Your task to perform on an android device: Open calendar and show me the third week of next month Image 0: 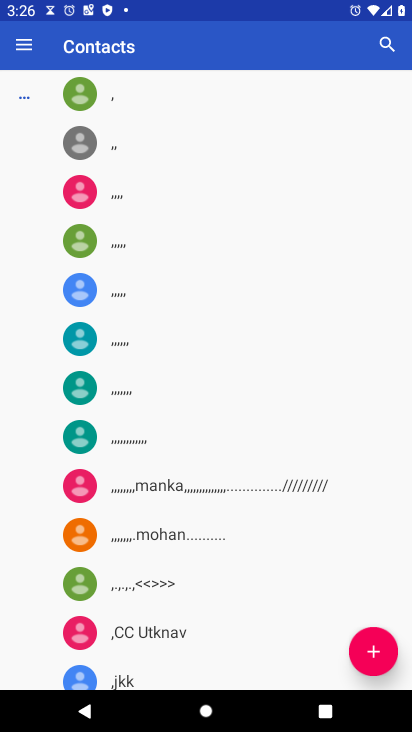
Step 0: press back button
Your task to perform on an android device: Open calendar and show me the third week of next month Image 1: 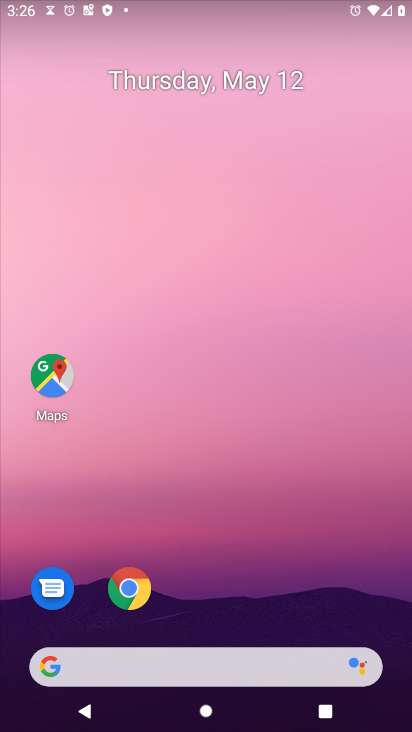
Step 1: drag from (309, 519) to (219, 1)
Your task to perform on an android device: Open calendar and show me the third week of next month Image 2: 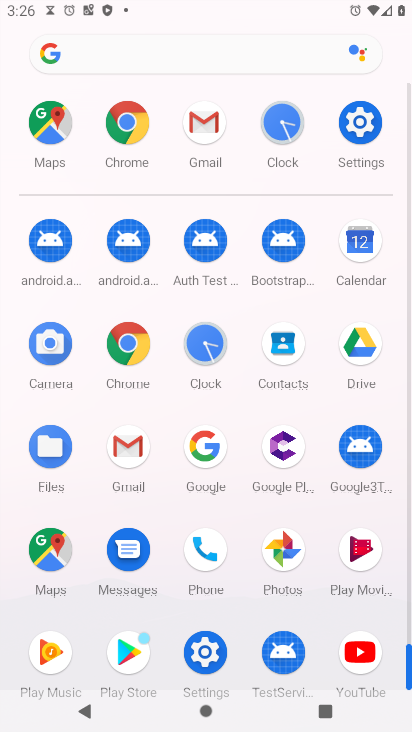
Step 2: drag from (18, 546) to (37, 251)
Your task to perform on an android device: Open calendar and show me the third week of next month Image 3: 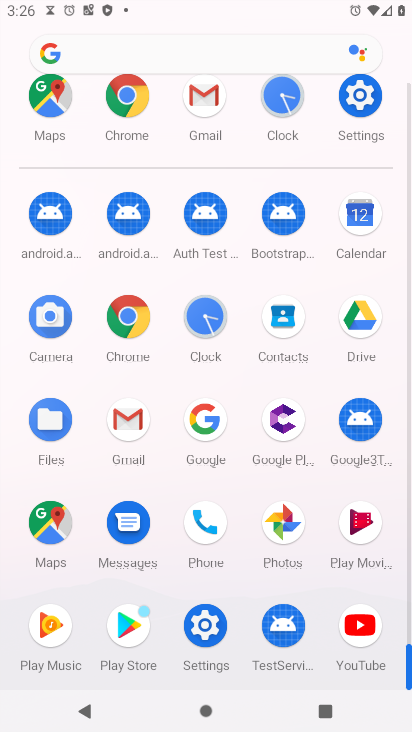
Step 3: click (362, 210)
Your task to perform on an android device: Open calendar and show me the third week of next month Image 4: 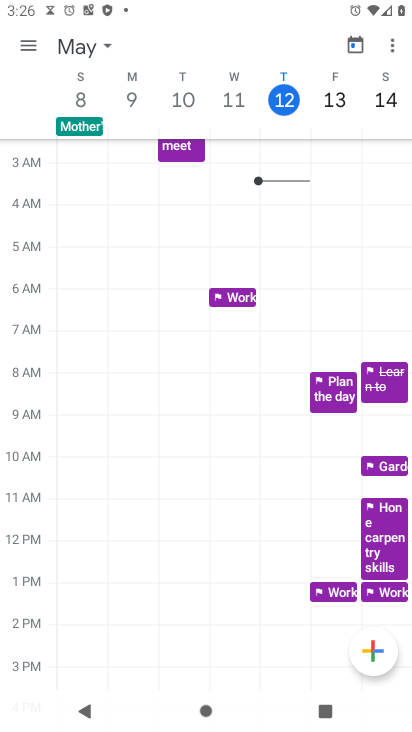
Step 4: click (103, 53)
Your task to perform on an android device: Open calendar and show me the third week of next month Image 5: 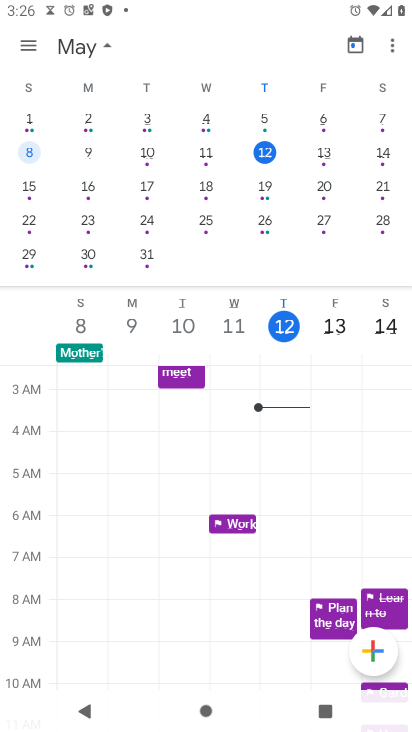
Step 5: drag from (398, 189) to (17, 188)
Your task to perform on an android device: Open calendar and show me the third week of next month Image 6: 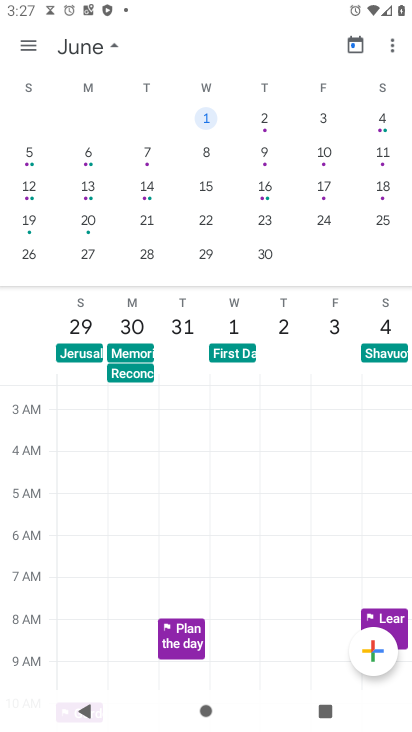
Step 6: click (27, 185)
Your task to perform on an android device: Open calendar and show me the third week of next month Image 7: 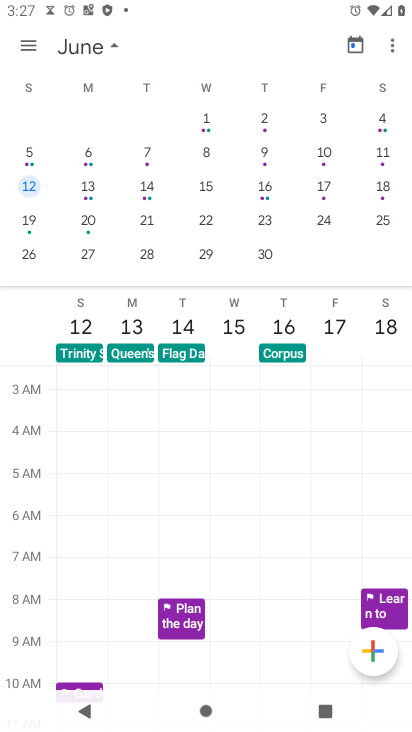
Step 7: click (17, 29)
Your task to perform on an android device: Open calendar and show me the third week of next month Image 8: 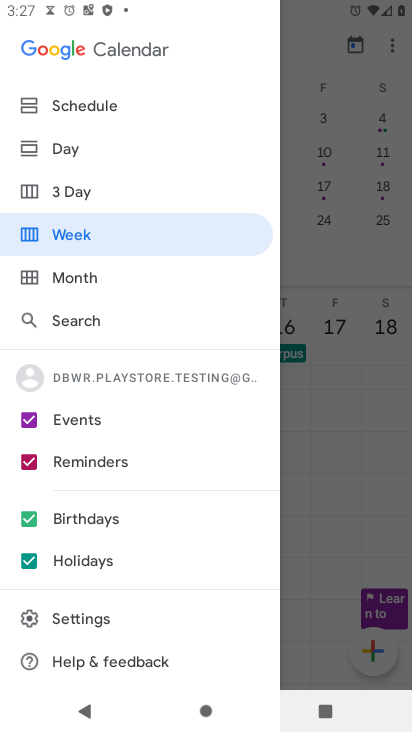
Step 8: click (87, 234)
Your task to perform on an android device: Open calendar and show me the third week of next month Image 9: 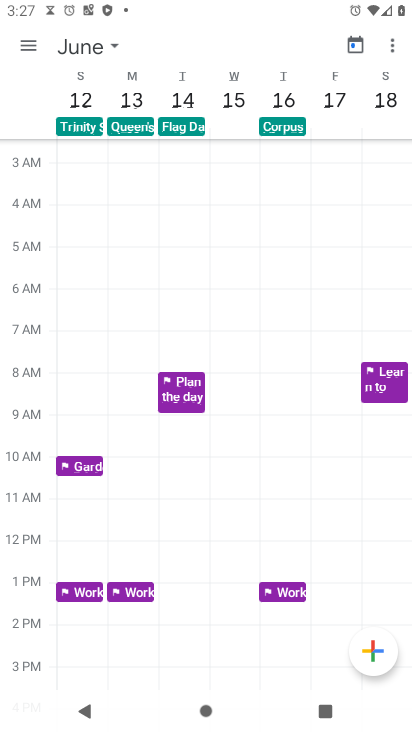
Step 9: task complete